Your task to perform on an android device: Search for seafood restaurants on Google Maps Image 0: 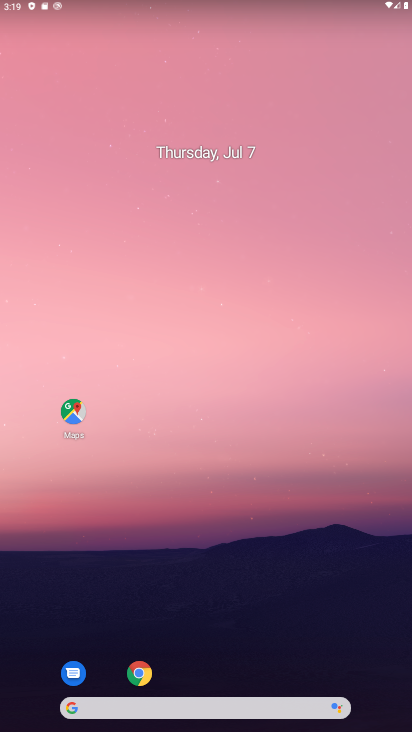
Step 0: press home button
Your task to perform on an android device: Search for seafood restaurants on Google Maps Image 1: 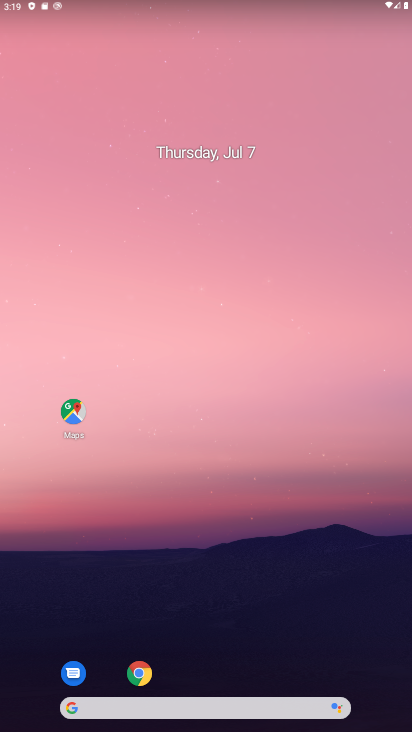
Step 1: drag from (229, 561) to (261, 117)
Your task to perform on an android device: Search for seafood restaurants on Google Maps Image 2: 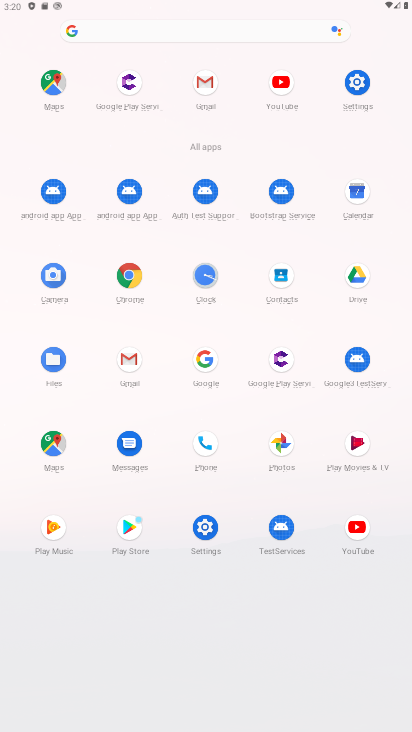
Step 2: click (51, 445)
Your task to perform on an android device: Search for seafood restaurants on Google Maps Image 3: 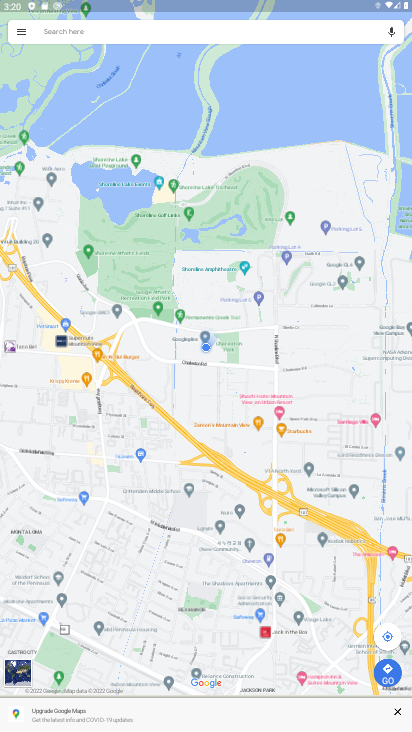
Step 3: click (93, 32)
Your task to perform on an android device: Search for seafood restaurants on Google Maps Image 4: 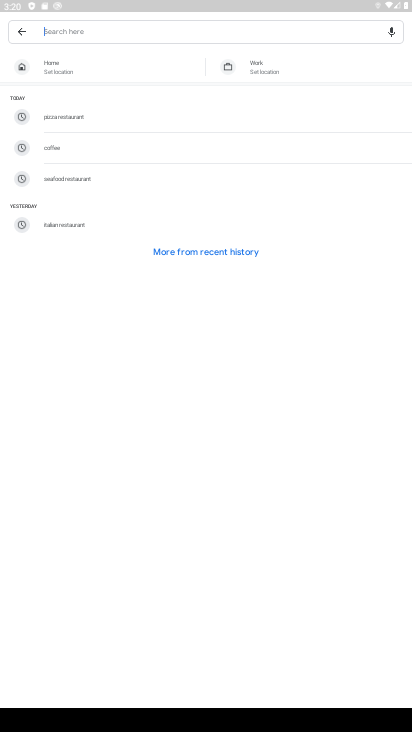
Step 4: click (66, 180)
Your task to perform on an android device: Search for seafood restaurants on Google Maps Image 5: 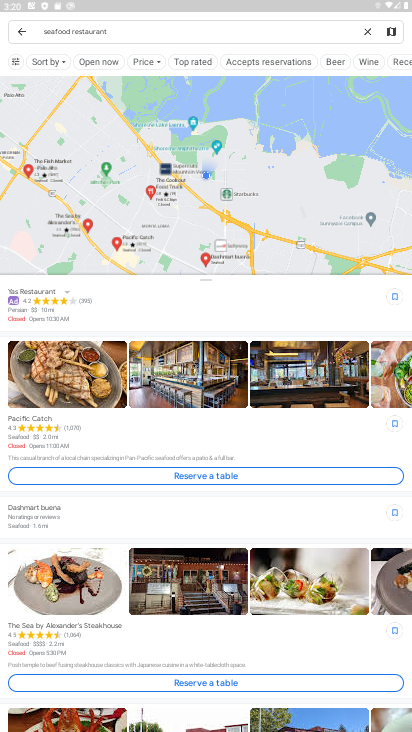
Step 5: task complete